Your task to perform on an android device: Clear all items from cart on newegg. Search for macbook pro on newegg, select the first entry, add it to the cart, then select checkout. Image 0: 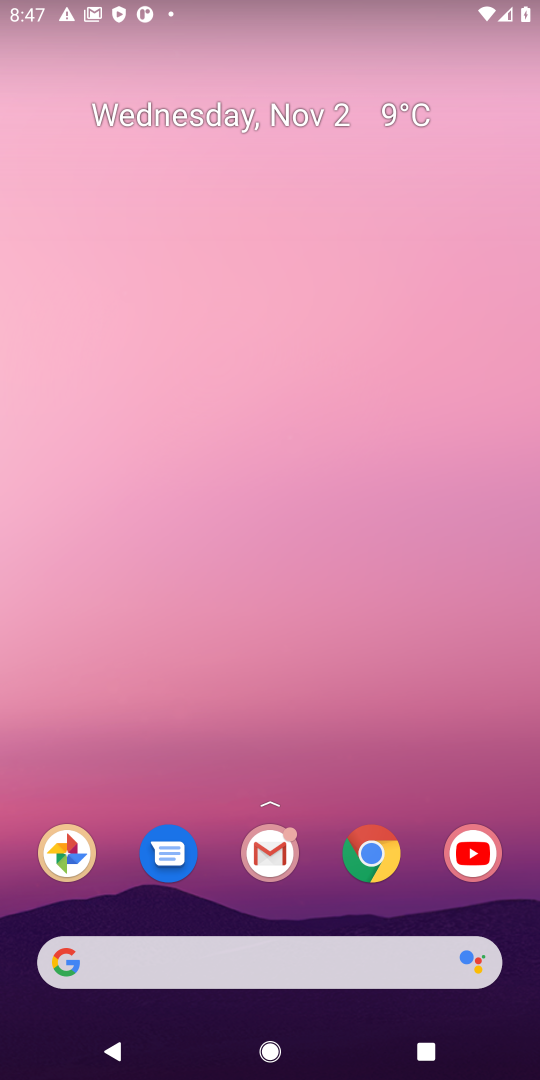
Step 0: click (372, 856)
Your task to perform on an android device: Clear all items from cart on newegg. Search for macbook pro on newegg, select the first entry, add it to the cart, then select checkout. Image 1: 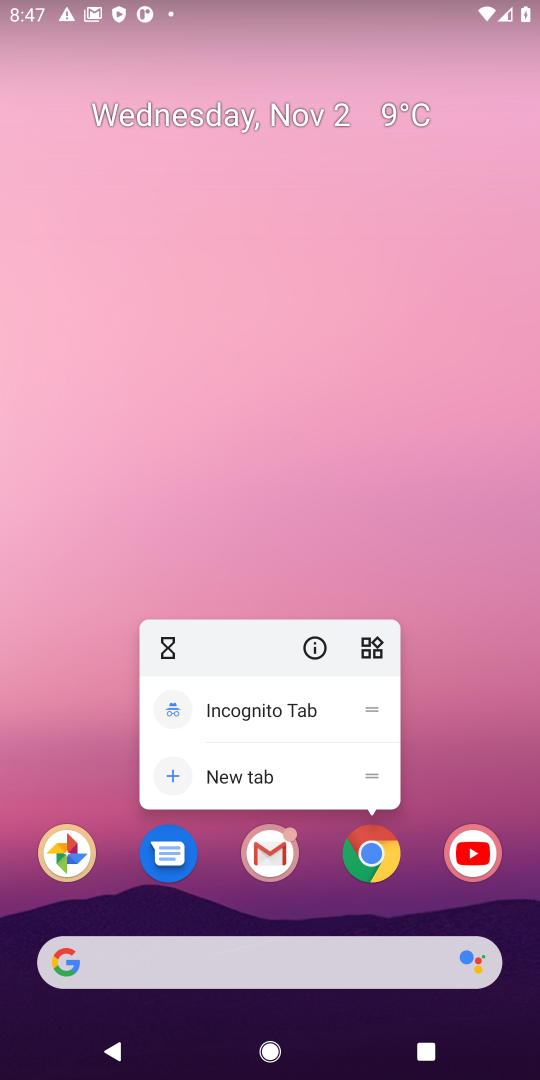
Step 1: click (372, 856)
Your task to perform on an android device: Clear all items from cart on newegg. Search for macbook pro on newegg, select the first entry, add it to the cart, then select checkout. Image 2: 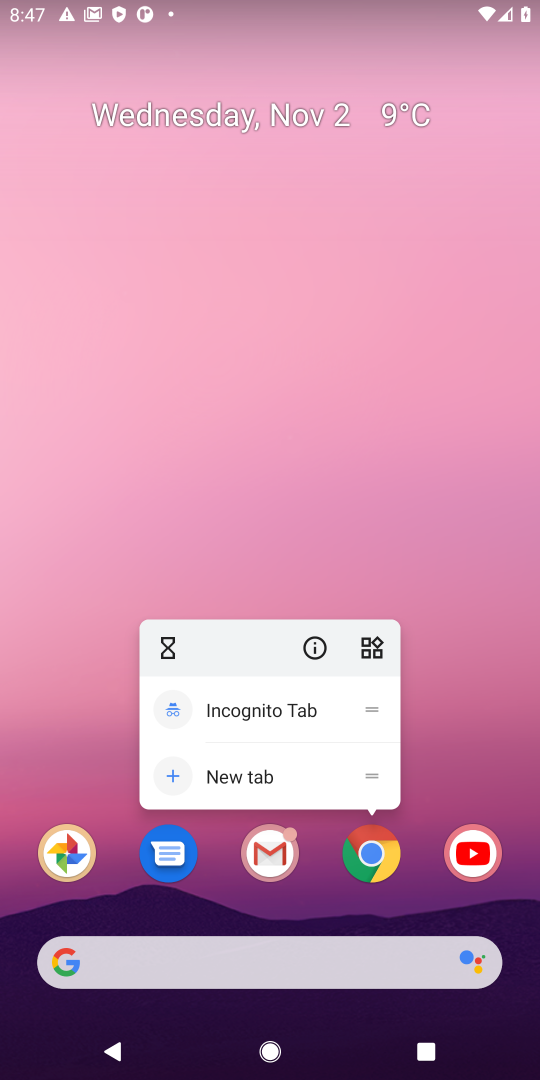
Step 2: click (372, 856)
Your task to perform on an android device: Clear all items from cart on newegg. Search for macbook pro on newegg, select the first entry, add it to the cart, then select checkout. Image 3: 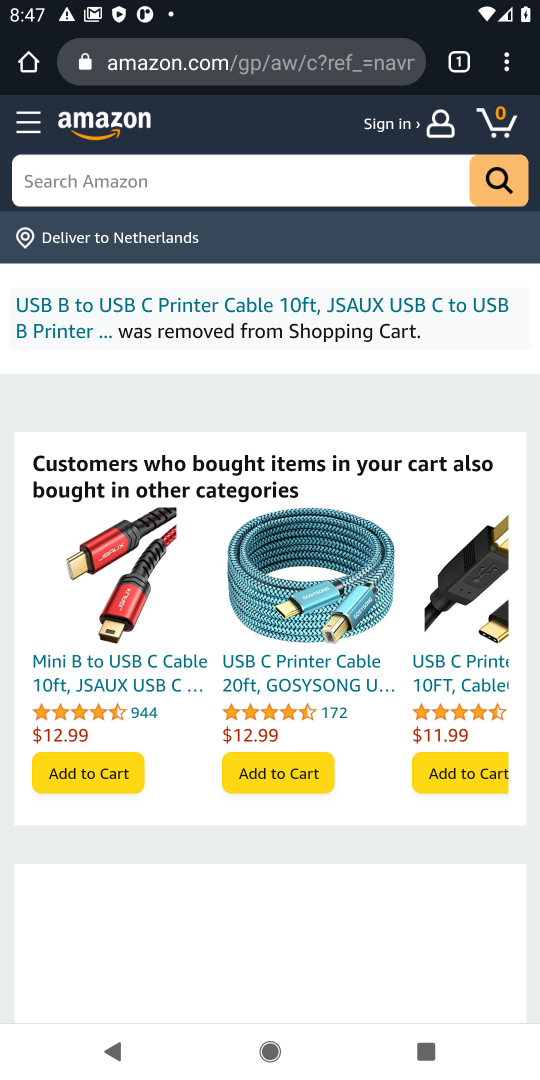
Step 3: click (318, 62)
Your task to perform on an android device: Clear all items from cart on newegg. Search for macbook pro on newegg, select the first entry, add it to the cart, then select checkout. Image 4: 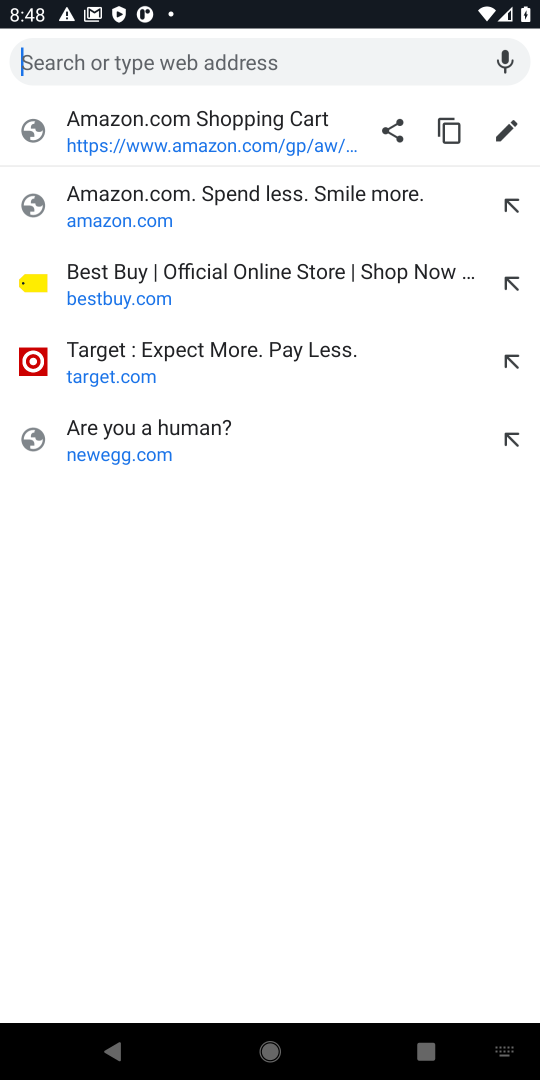
Step 4: type "newegg"
Your task to perform on an android device: Clear all items from cart on newegg. Search for macbook pro on newegg, select the first entry, add it to the cart, then select checkout. Image 5: 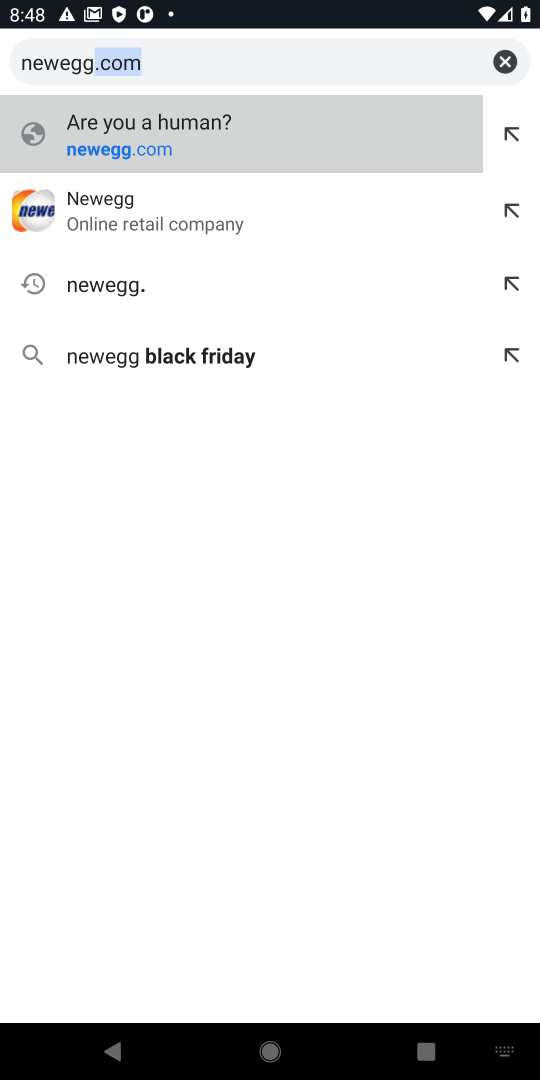
Step 5: press enter
Your task to perform on an android device: Clear all items from cart on newegg. Search for macbook pro on newegg, select the first entry, add it to the cart, then select checkout. Image 6: 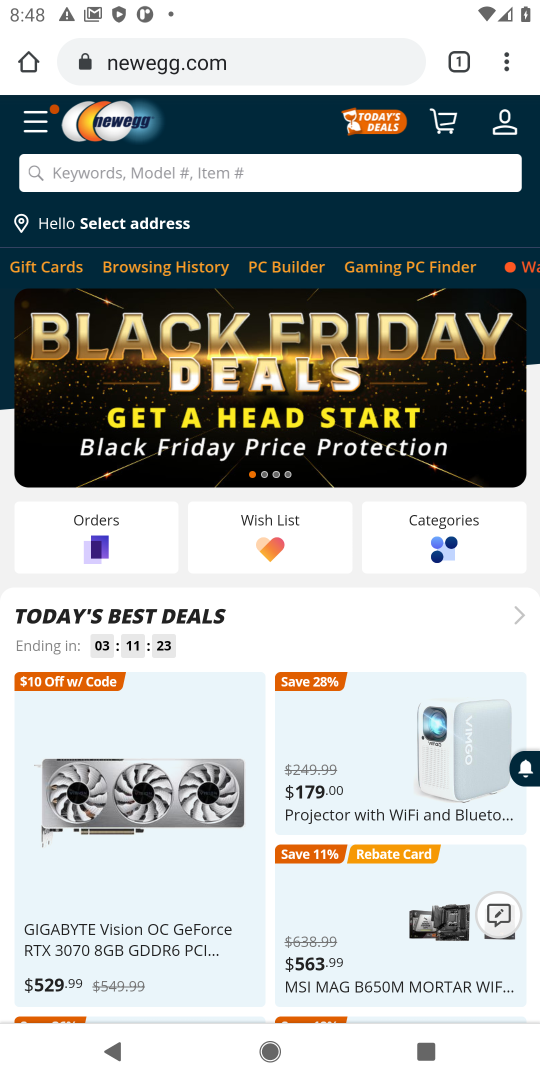
Step 6: click (318, 169)
Your task to perform on an android device: Clear all items from cart on newegg. Search for macbook pro on newegg, select the first entry, add it to the cart, then select checkout. Image 7: 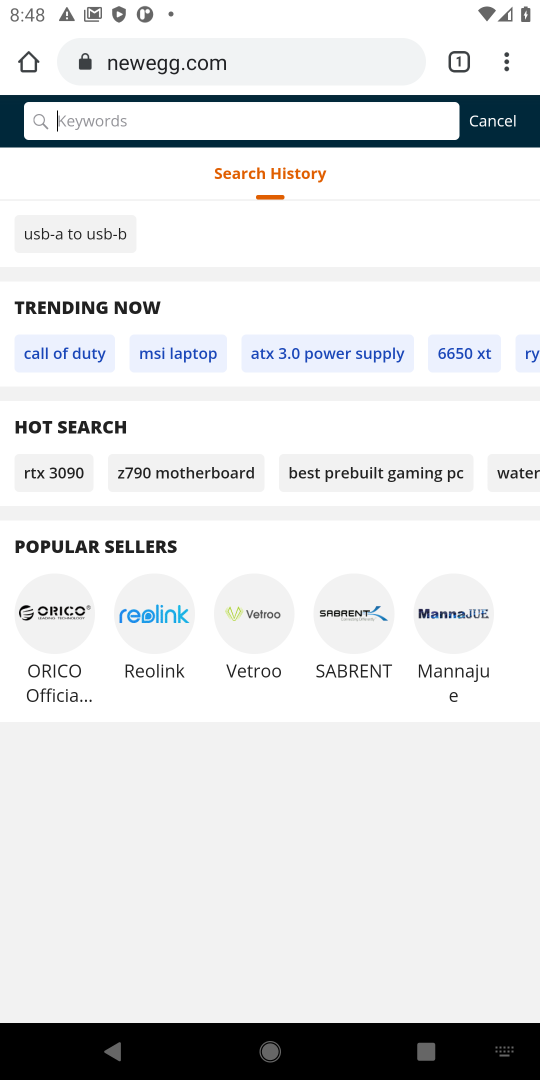
Step 7: type "macbook pro "
Your task to perform on an android device: Clear all items from cart on newegg. Search for macbook pro on newegg, select the first entry, add it to the cart, then select checkout. Image 8: 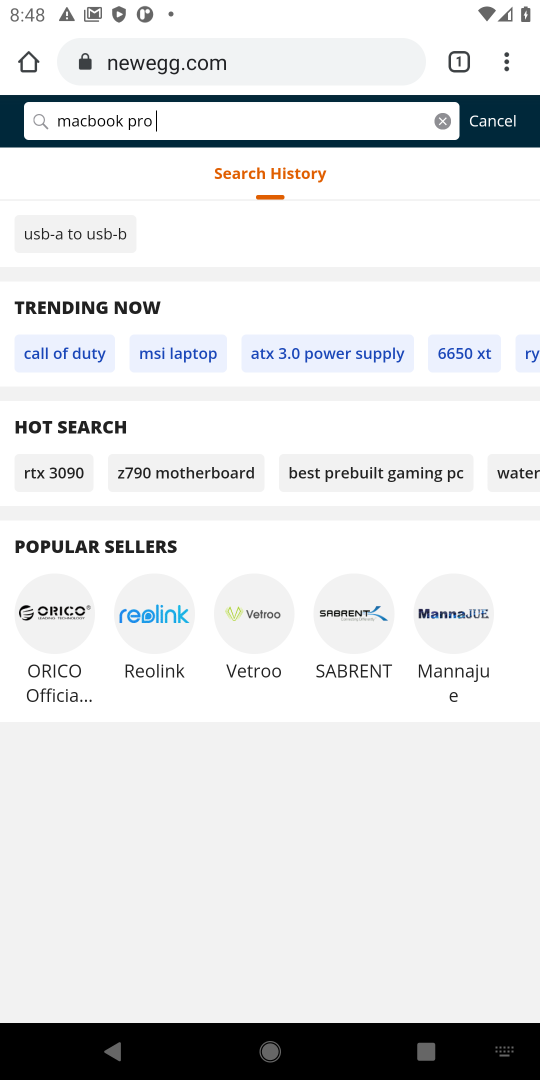
Step 8: press enter
Your task to perform on an android device: Clear all items from cart on newegg. Search for macbook pro on newegg, select the first entry, add it to the cart, then select checkout. Image 9: 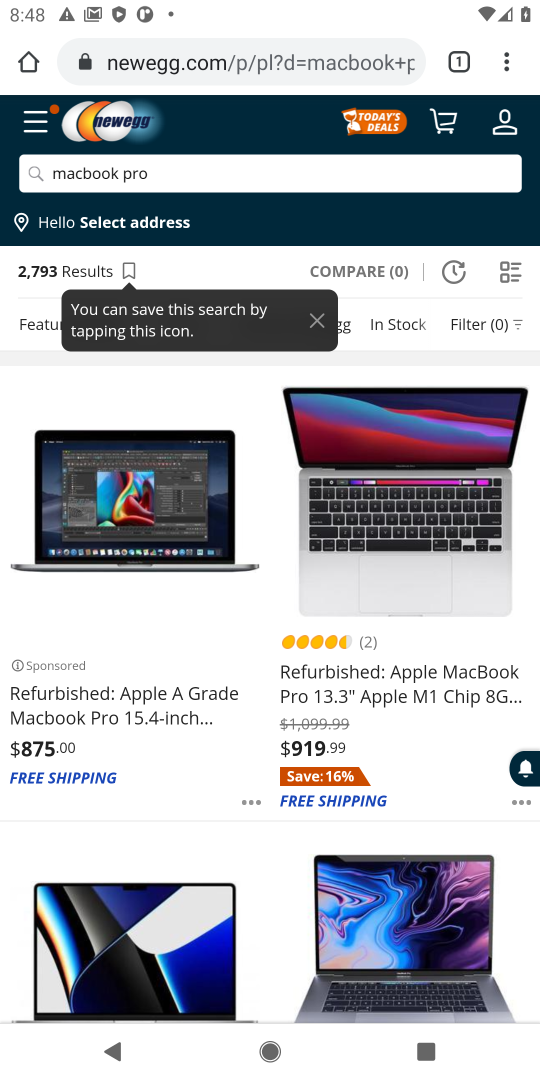
Step 9: click (153, 584)
Your task to perform on an android device: Clear all items from cart on newegg. Search for macbook pro on newegg, select the first entry, add it to the cart, then select checkout. Image 10: 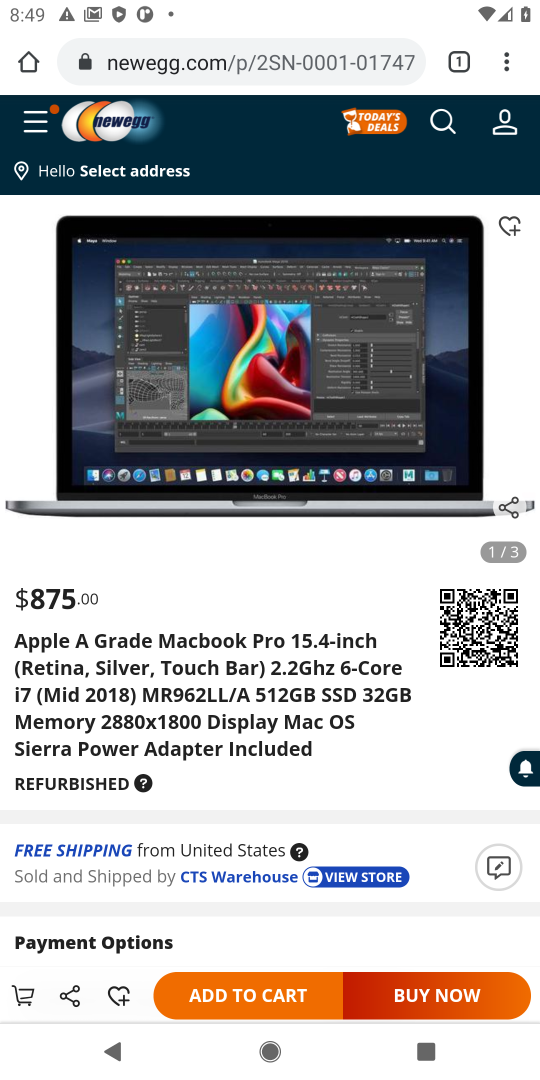
Step 10: click (243, 988)
Your task to perform on an android device: Clear all items from cart on newegg. Search for macbook pro on newegg, select the first entry, add it to the cart, then select checkout. Image 11: 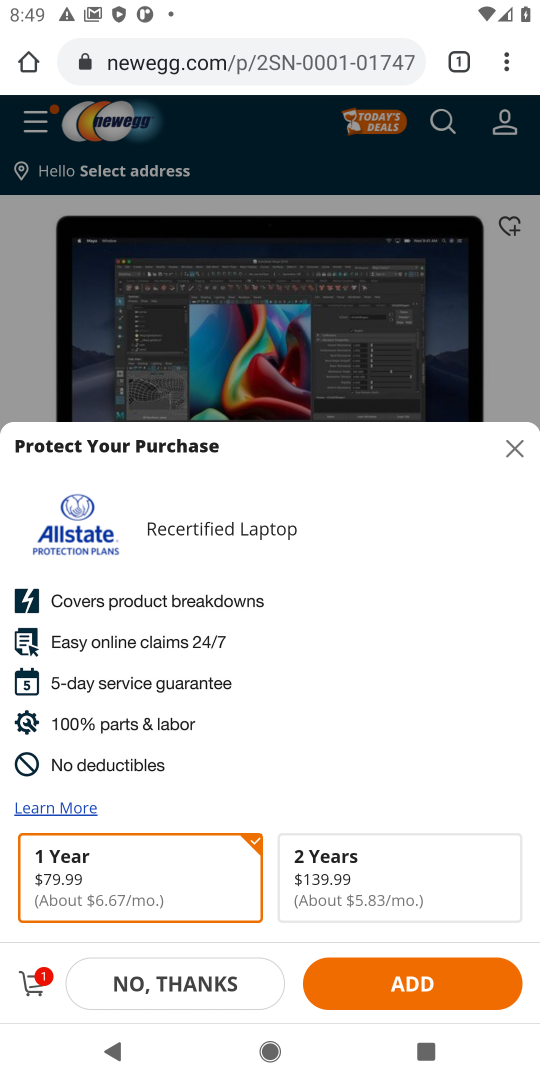
Step 11: click (36, 989)
Your task to perform on an android device: Clear all items from cart on newegg. Search for macbook pro on newegg, select the first entry, add it to the cart, then select checkout. Image 12: 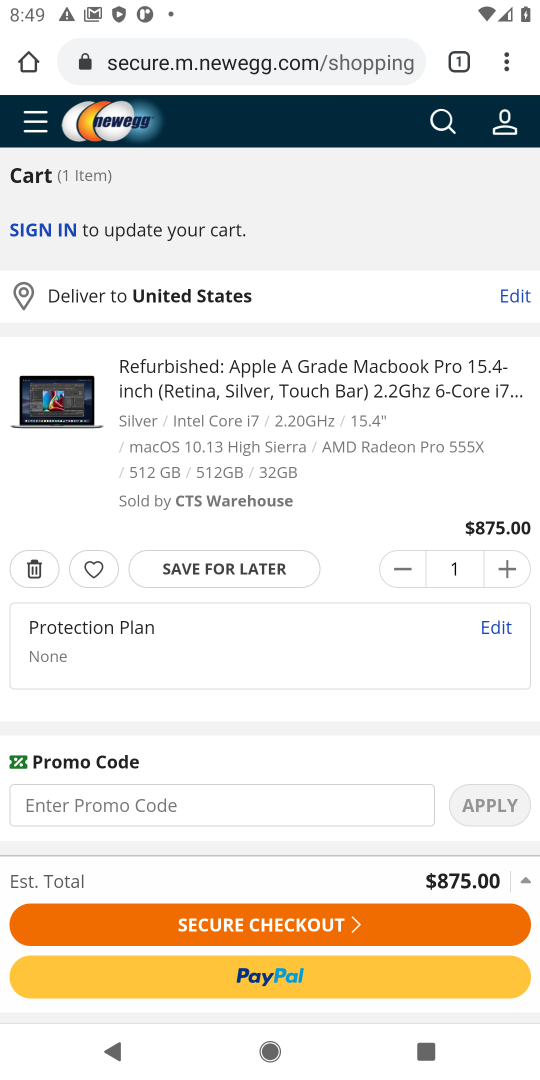
Step 12: click (258, 916)
Your task to perform on an android device: Clear all items from cart on newegg. Search for macbook pro on newegg, select the first entry, add it to the cart, then select checkout. Image 13: 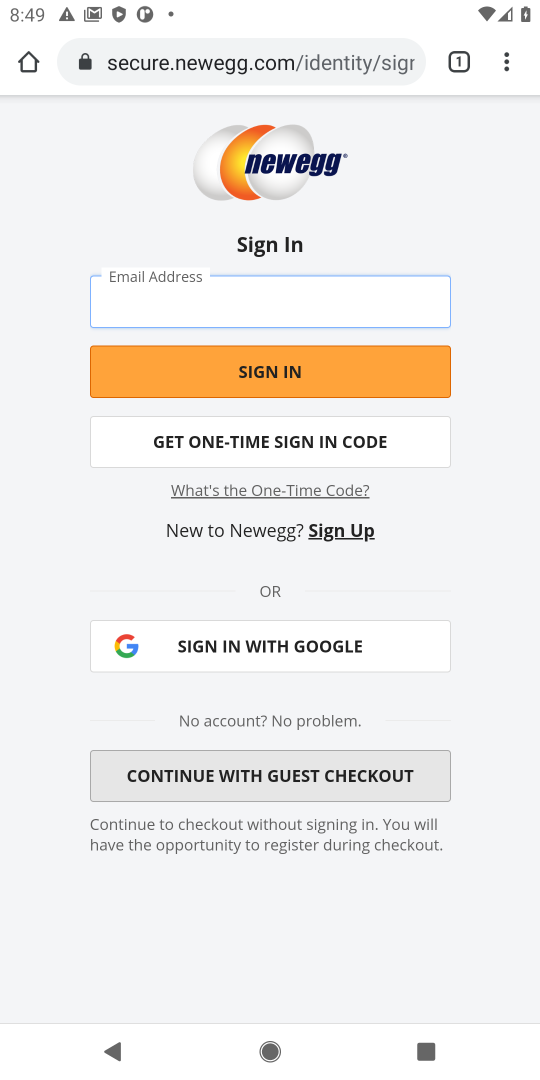
Step 13: task complete